Your task to perform on an android device: Open network settings Image 0: 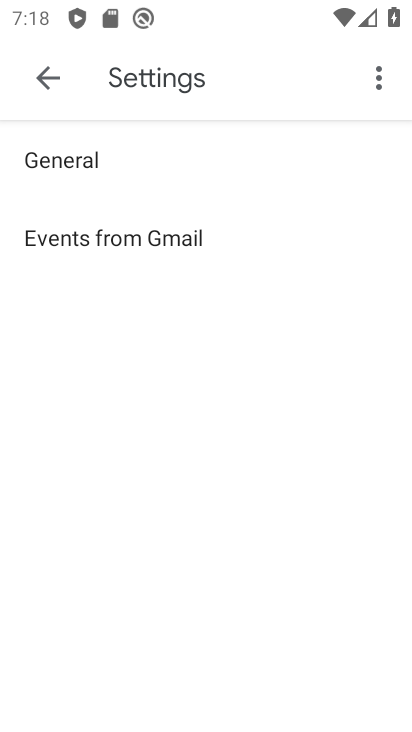
Step 0: press home button
Your task to perform on an android device: Open network settings Image 1: 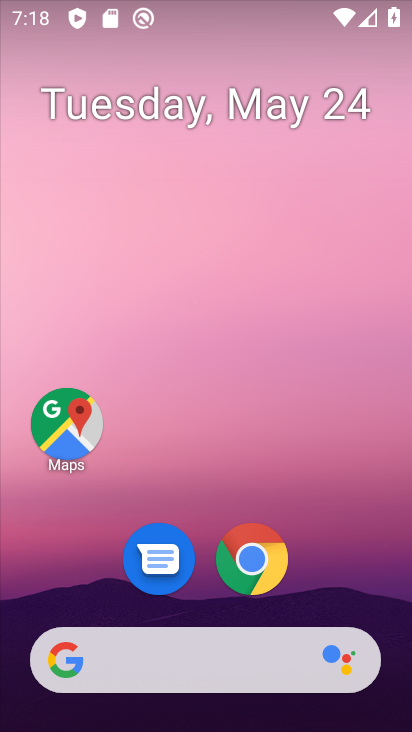
Step 1: drag from (217, 634) to (311, 202)
Your task to perform on an android device: Open network settings Image 2: 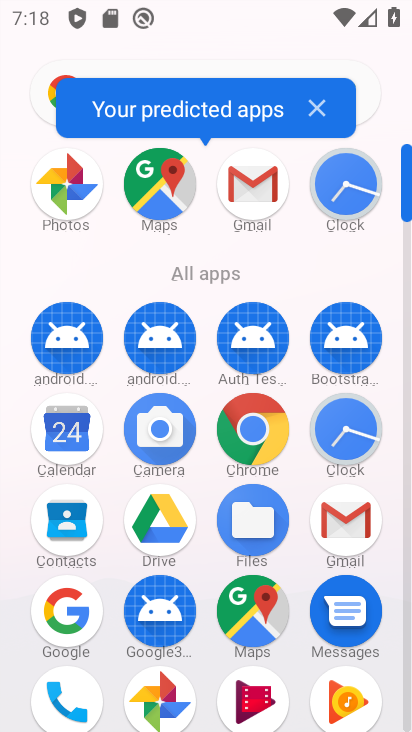
Step 2: drag from (209, 549) to (245, 207)
Your task to perform on an android device: Open network settings Image 3: 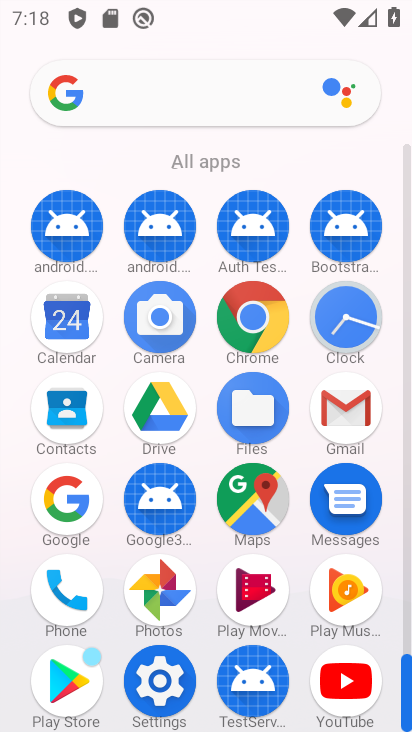
Step 3: click (162, 675)
Your task to perform on an android device: Open network settings Image 4: 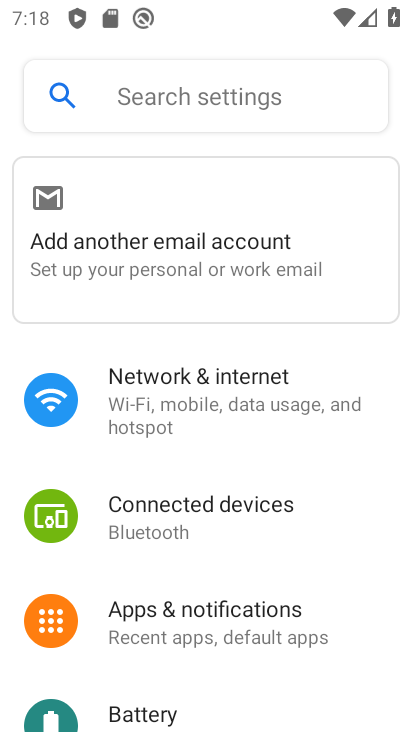
Step 4: click (184, 382)
Your task to perform on an android device: Open network settings Image 5: 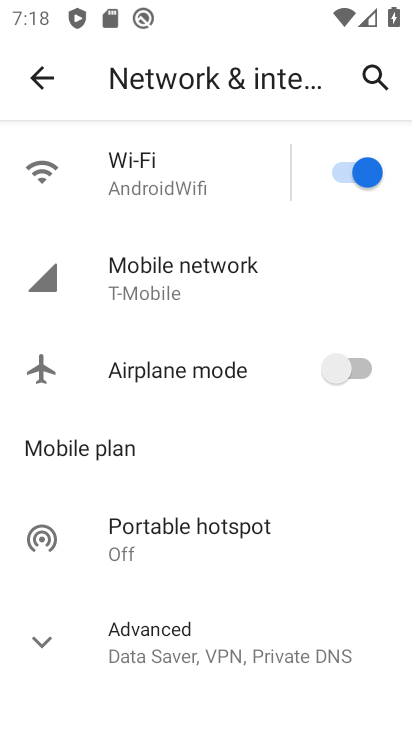
Step 5: task complete